Your task to perform on an android device: Open Maps and search for coffee Image 0: 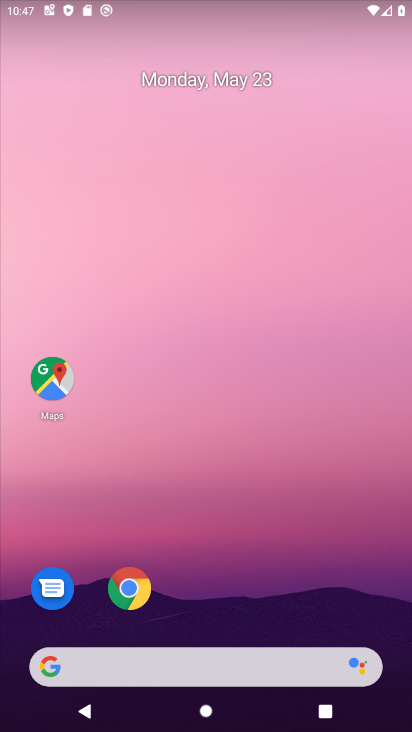
Step 0: click (54, 379)
Your task to perform on an android device: Open Maps and search for coffee Image 1: 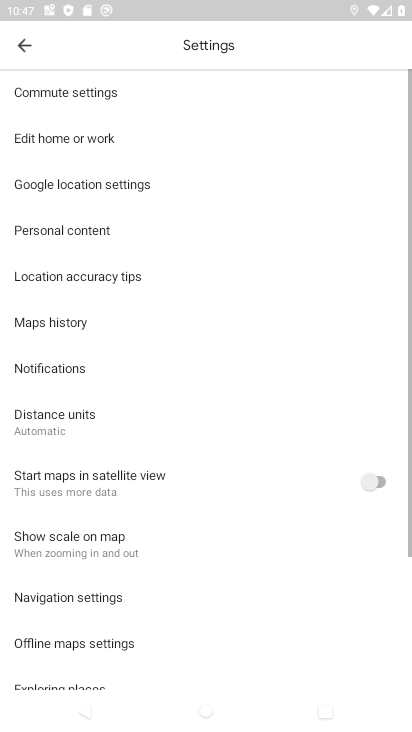
Step 1: click (43, 45)
Your task to perform on an android device: Open Maps and search for coffee Image 2: 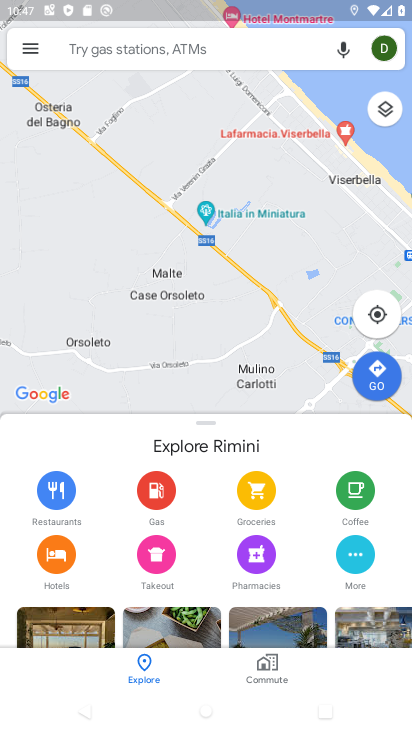
Step 2: click (34, 43)
Your task to perform on an android device: Open Maps and search for coffee Image 3: 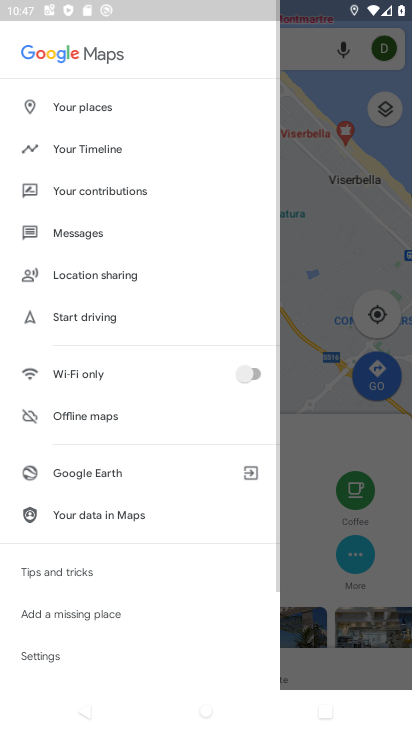
Step 3: click (292, 64)
Your task to perform on an android device: Open Maps and search for coffee Image 4: 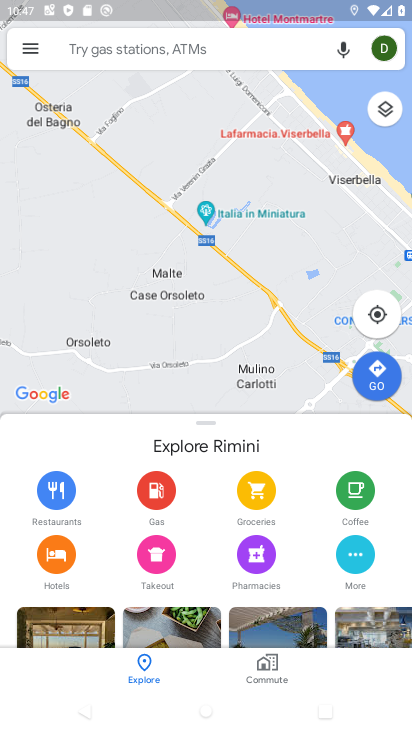
Step 4: click (293, 63)
Your task to perform on an android device: Open Maps and search for coffee Image 5: 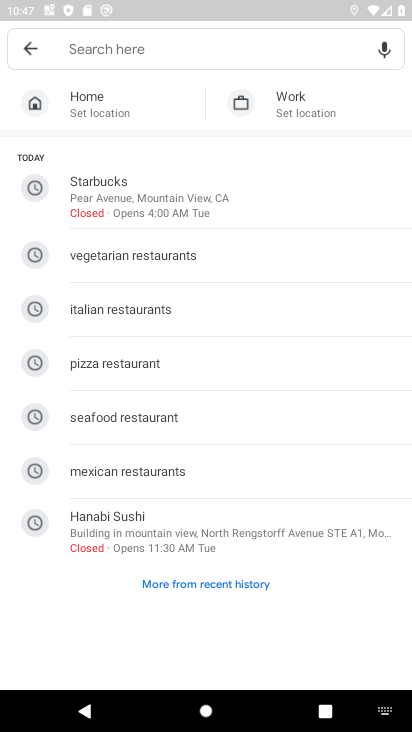
Step 5: type "coffee"
Your task to perform on an android device: Open Maps and search for coffee Image 6: 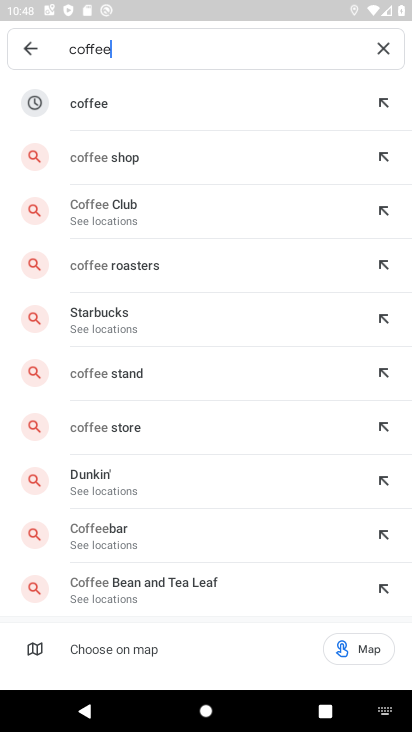
Step 6: click (87, 96)
Your task to perform on an android device: Open Maps and search for coffee Image 7: 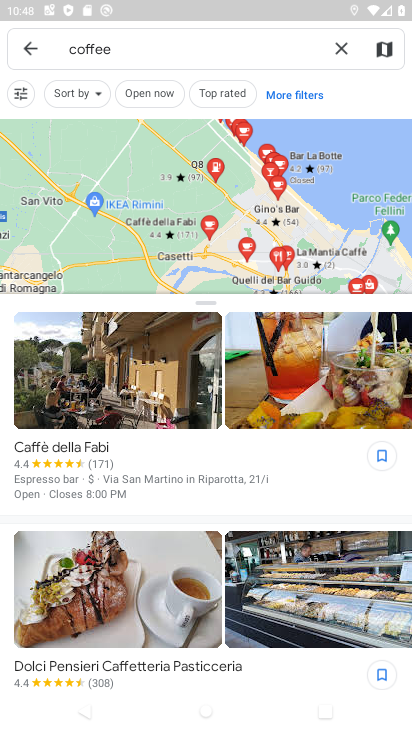
Step 7: task complete